Your task to perform on an android device: set default search engine in the chrome app Image 0: 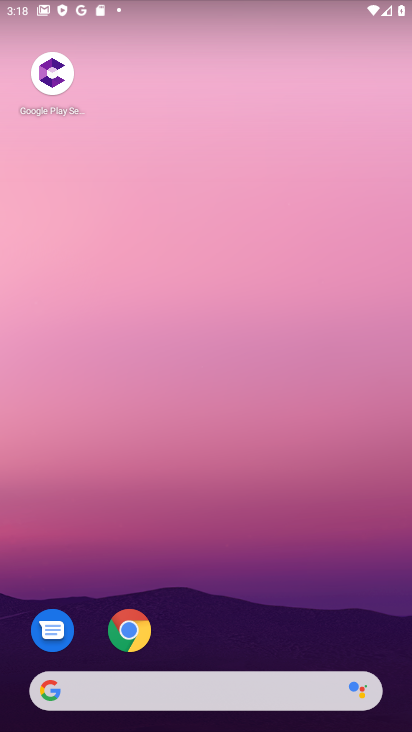
Step 0: click (130, 627)
Your task to perform on an android device: set default search engine in the chrome app Image 1: 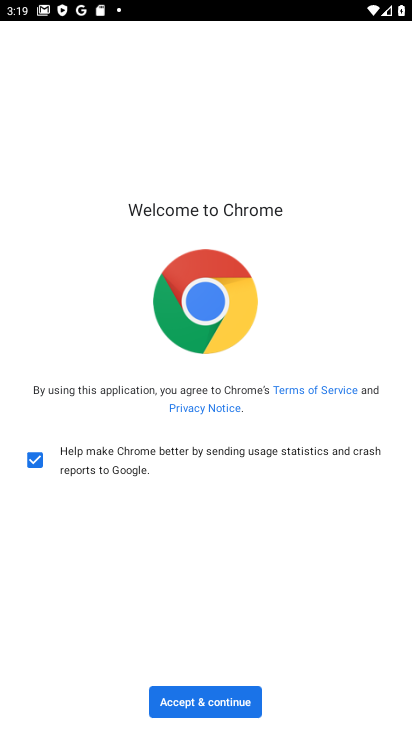
Step 1: click (197, 699)
Your task to perform on an android device: set default search engine in the chrome app Image 2: 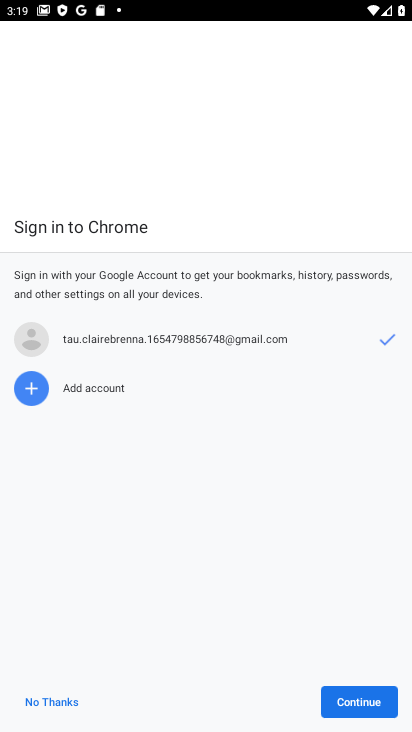
Step 2: click (348, 703)
Your task to perform on an android device: set default search engine in the chrome app Image 3: 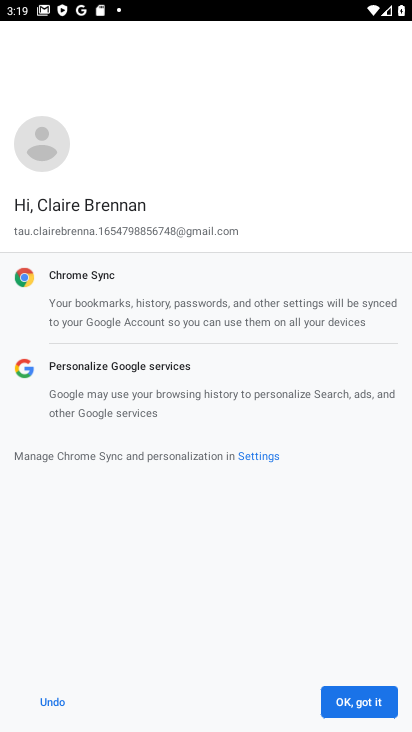
Step 3: click (348, 703)
Your task to perform on an android device: set default search engine in the chrome app Image 4: 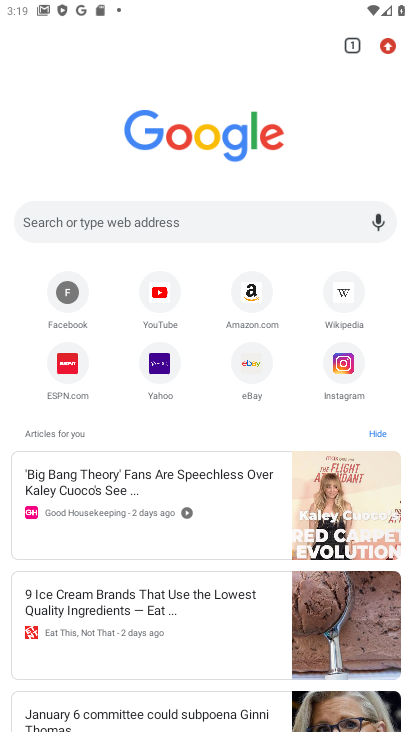
Step 4: click (387, 47)
Your task to perform on an android device: set default search engine in the chrome app Image 5: 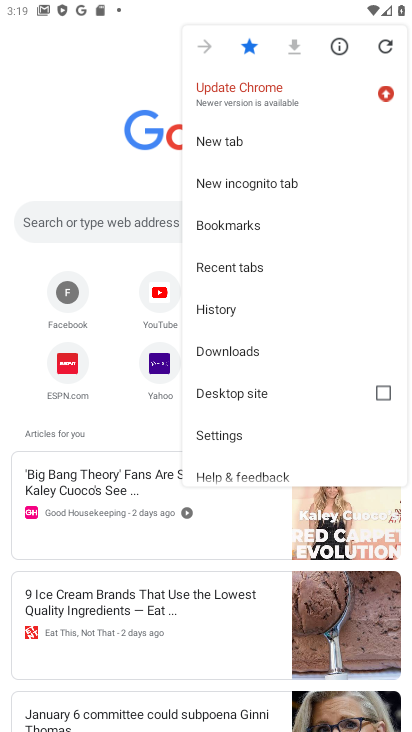
Step 5: click (221, 433)
Your task to perform on an android device: set default search engine in the chrome app Image 6: 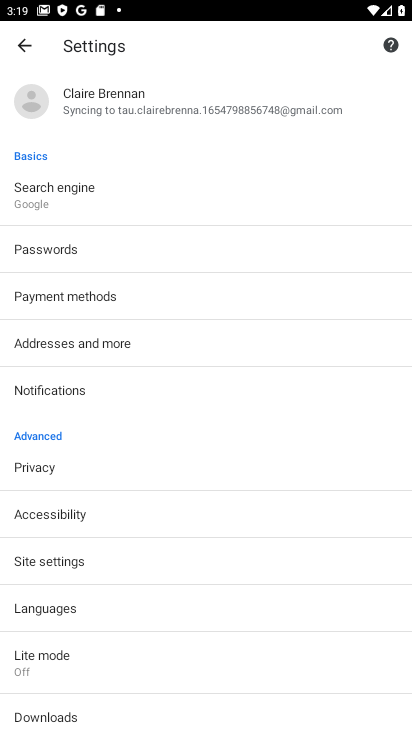
Step 6: click (63, 193)
Your task to perform on an android device: set default search engine in the chrome app Image 7: 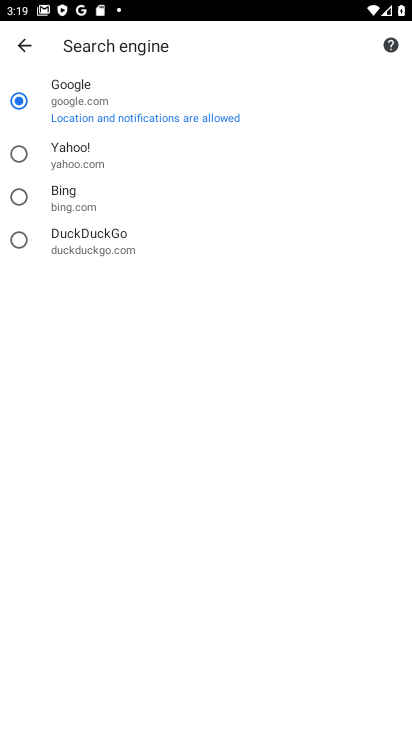
Step 7: click (18, 101)
Your task to perform on an android device: set default search engine in the chrome app Image 8: 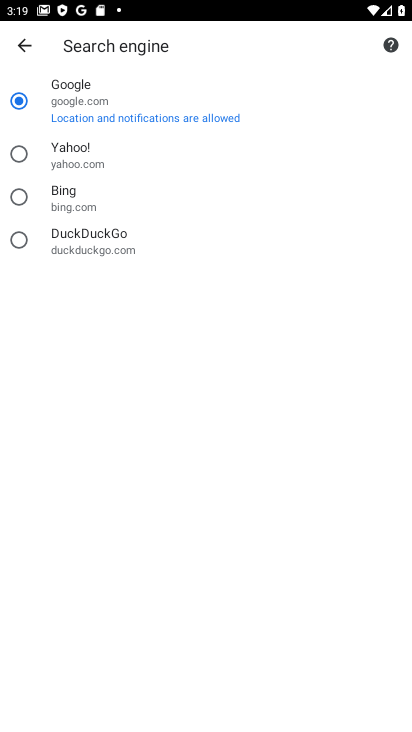
Step 8: task complete